Your task to perform on an android device: What's a good restaurant in New York? Image 0: 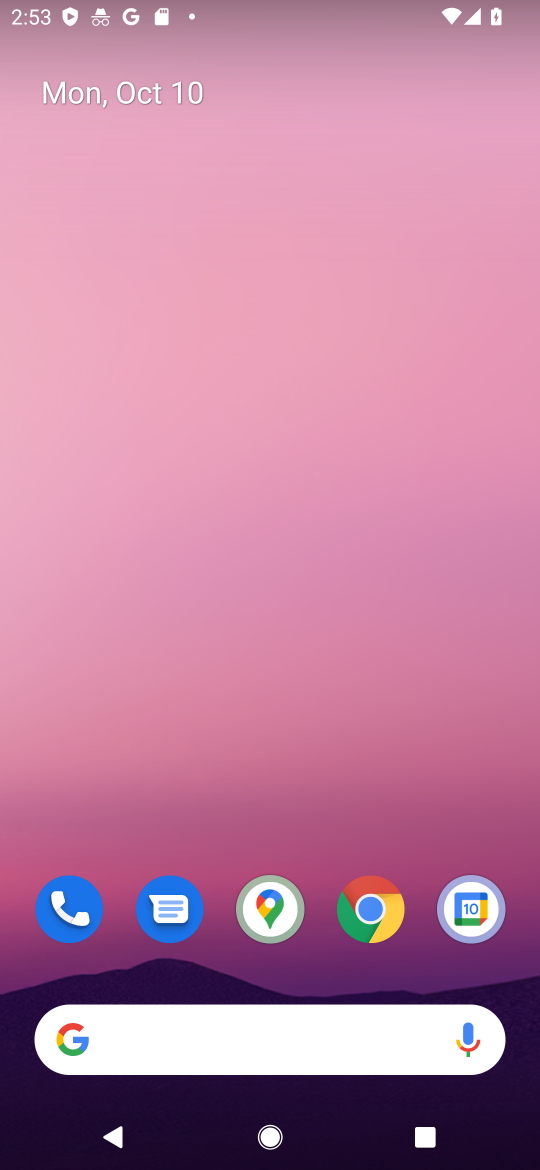
Step 0: click (366, 899)
Your task to perform on an android device: What's a good restaurant in New York? Image 1: 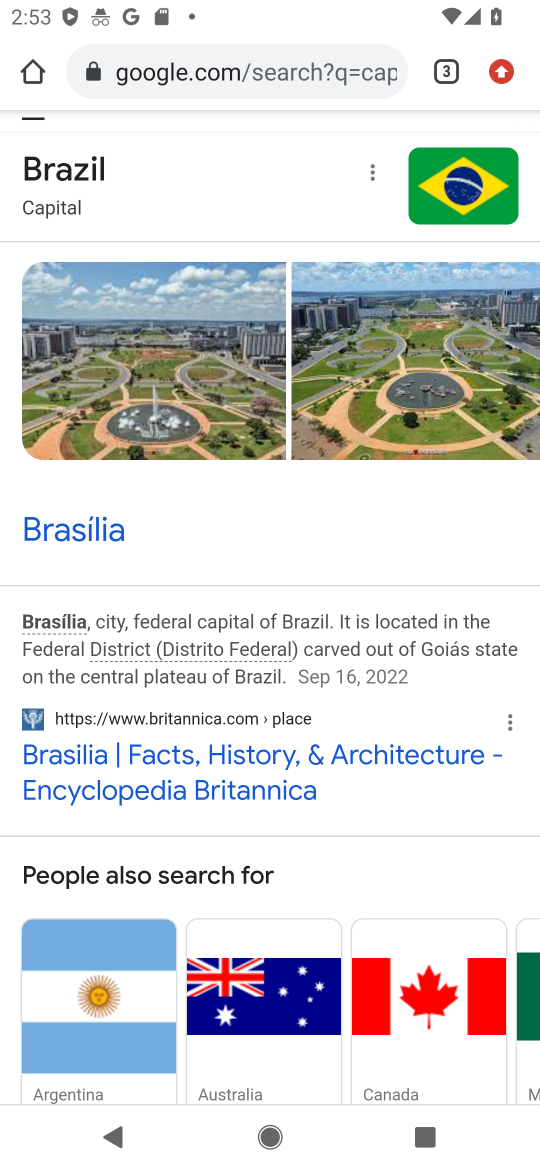
Step 1: click (259, 53)
Your task to perform on an android device: What's a good restaurant in New York? Image 2: 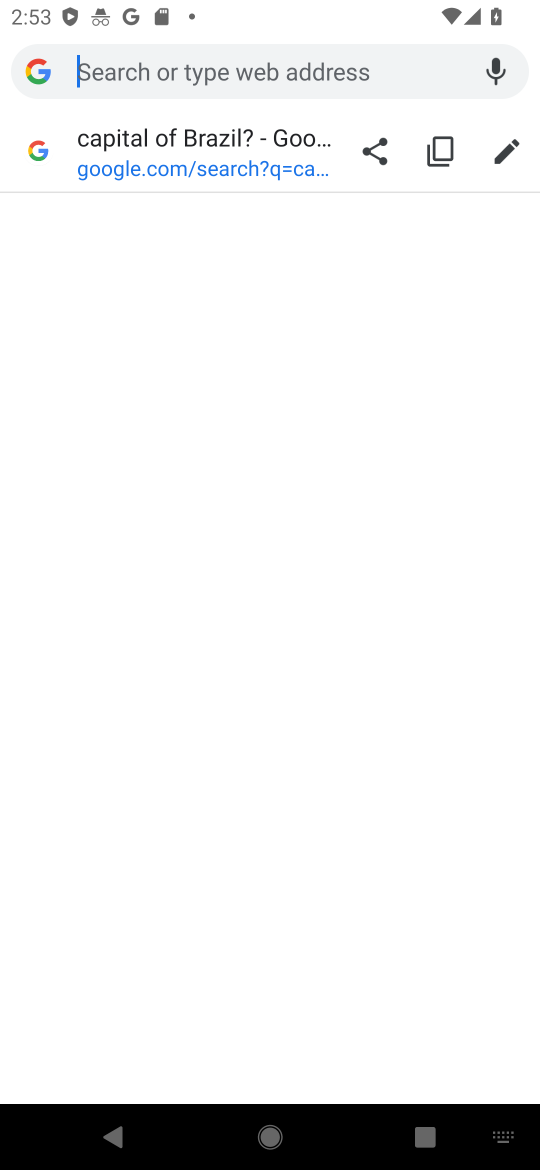
Step 2: type "good restaurant in New York?"
Your task to perform on an android device: What's a good restaurant in New York? Image 3: 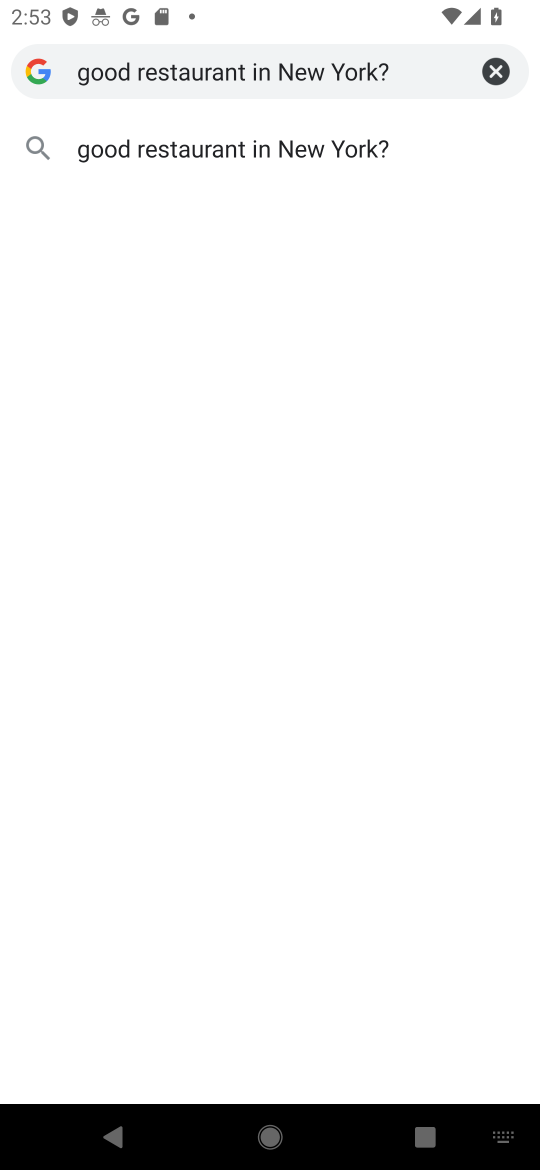
Step 3: click (161, 146)
Your task to perform on an android device: What's a good restaurant in New York? Image 4: 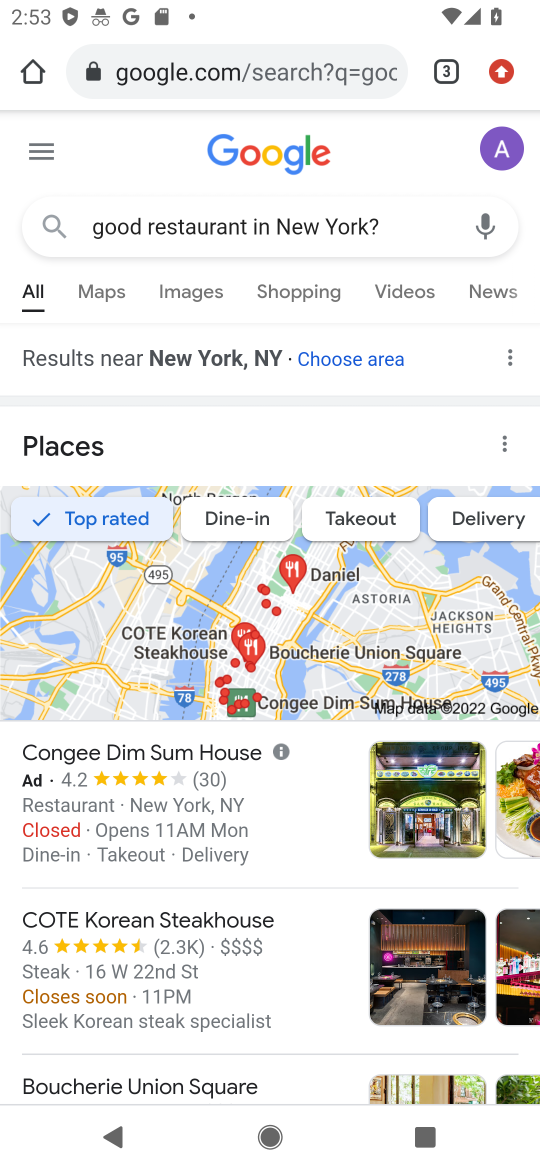
Step 4: drag from (317, 897) to (316, 295)
Your task to perform on an android device: What's a good restaurant in New York? Image 5: 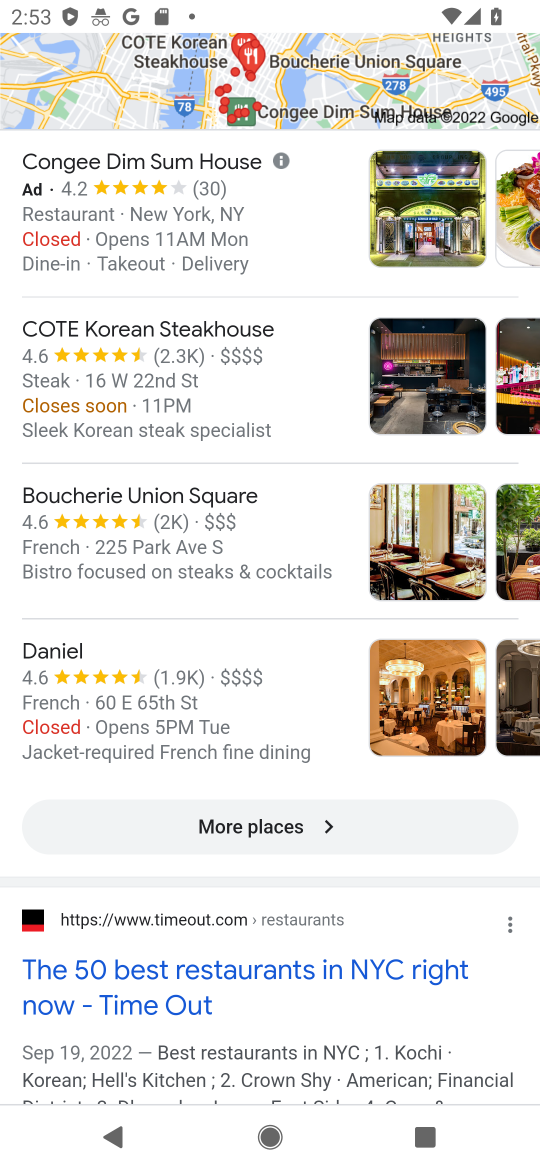
Step 5: drag from (293, 888) to (303, 291)
Your task to perform on an android device: What's a good restaurant in New York? Image 6: 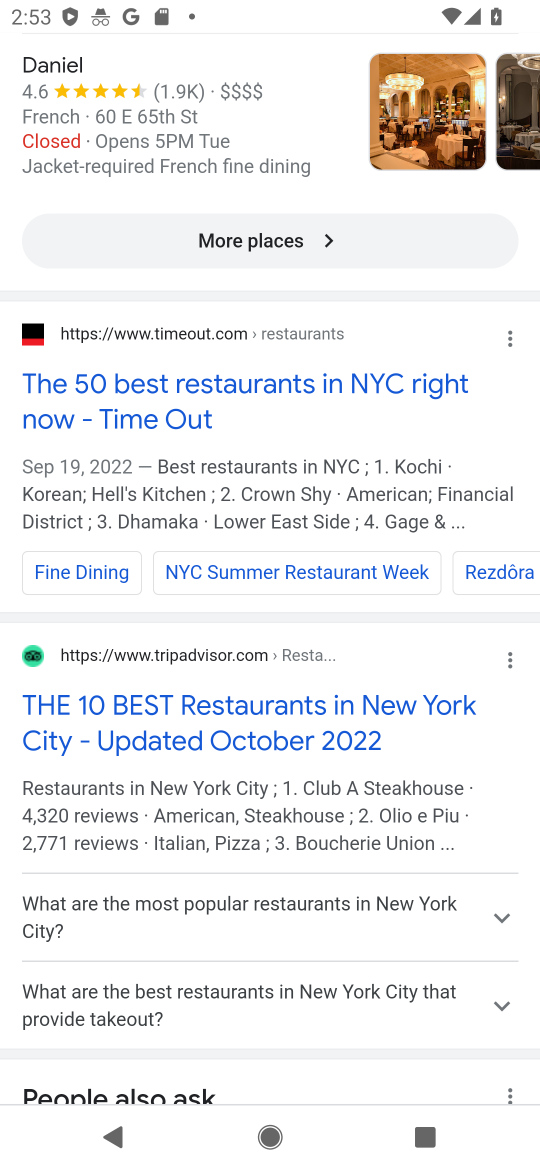
Step 6: click (96, 390)
Your task to perform on an android device: What's a good restaurant in New York? Image 7: 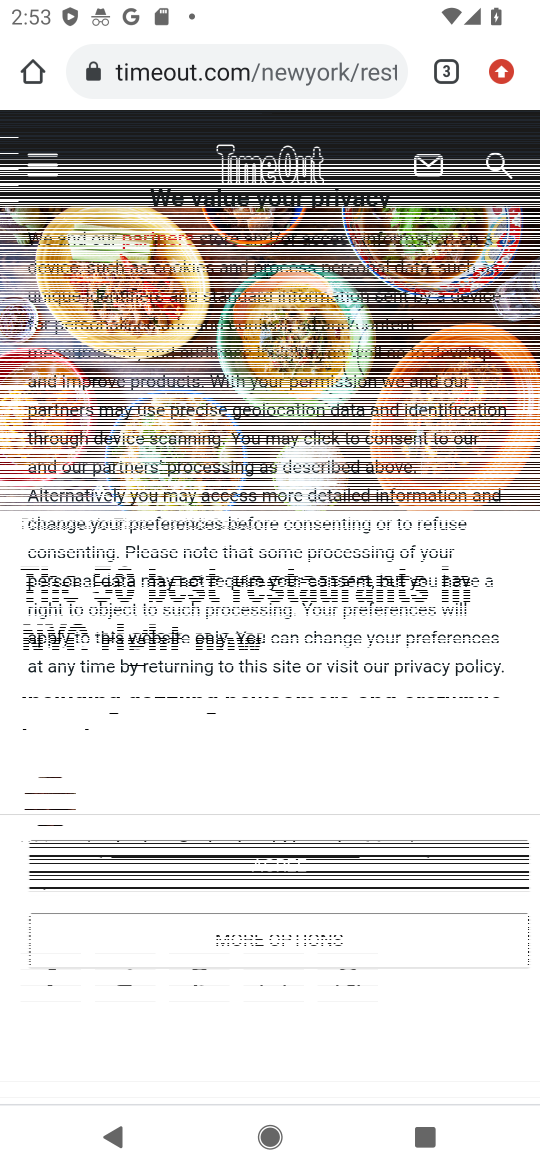
Step 7: drag from (359, 746) to (365, 447)
Your task to perform on an android device: What's a good restaurant in New York? Image 8: 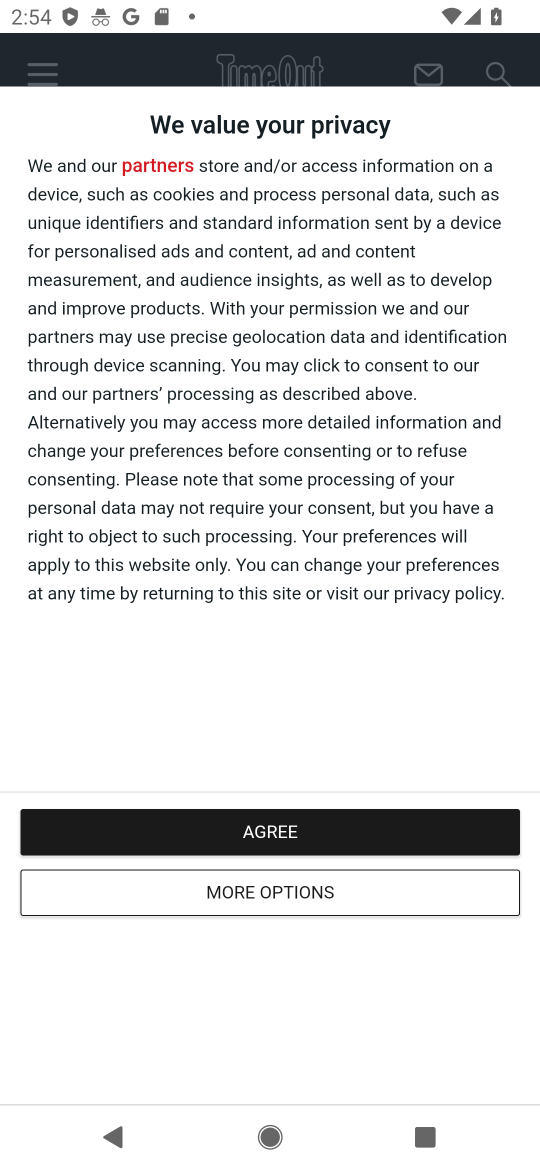
Step 8: click (261, 820)
Your task to perform on an android device: What's a good restaurant in New York? Image 9: 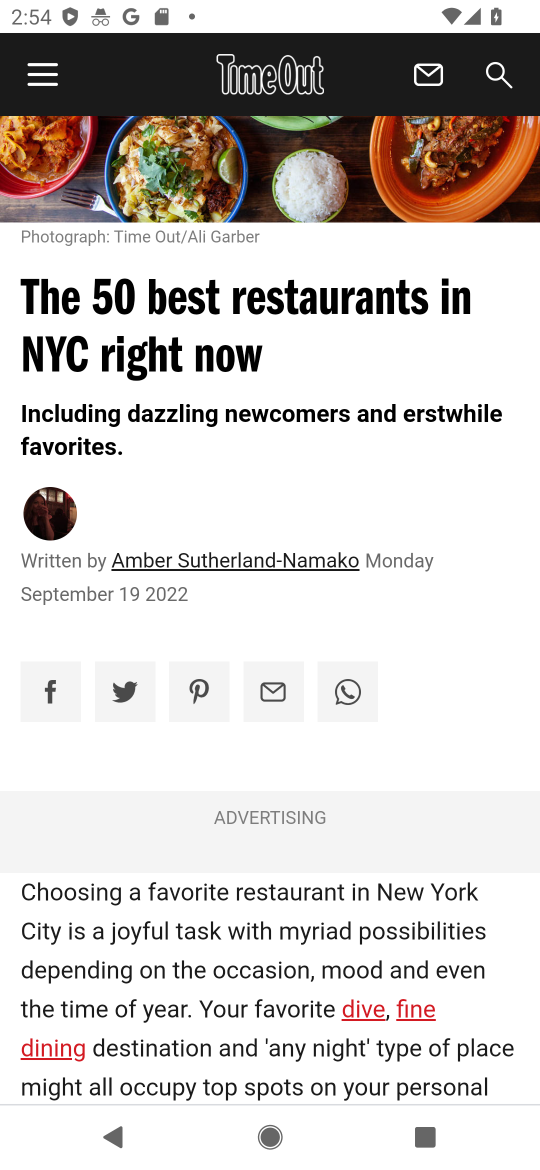
Step 9: task complete